Your task to perform on an android device: toggle priority inbox in the gmail app Image 0: 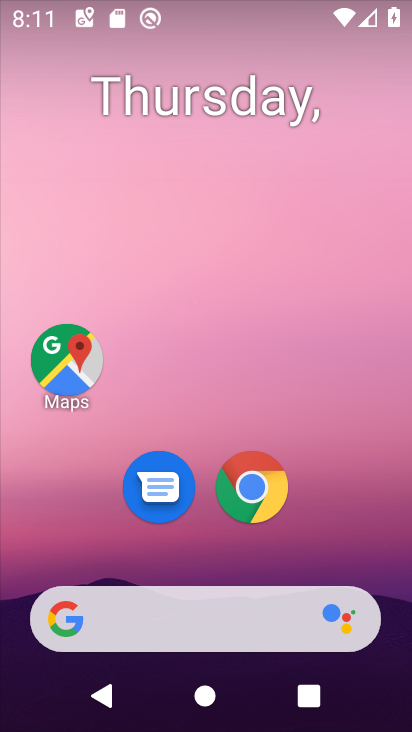
Step 0: drag from (218, 517) to (208, 56)
Your task to perform on an android device: toggle priority inbox in the gmail app Image 1: 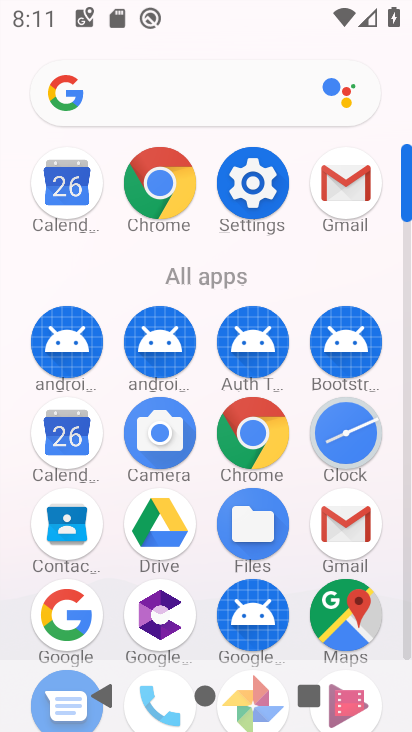
Step 1: click (354, 175)
Your task to perform on an android device: toggle priority inbox in the gmail app Image 2: 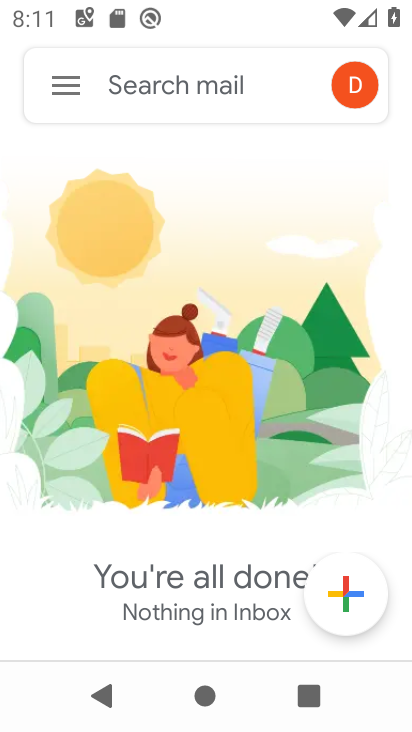
Step 2: click (62, 73)
Your task to perform on an android device: toggle priority inbox in the gmail app Image 3: 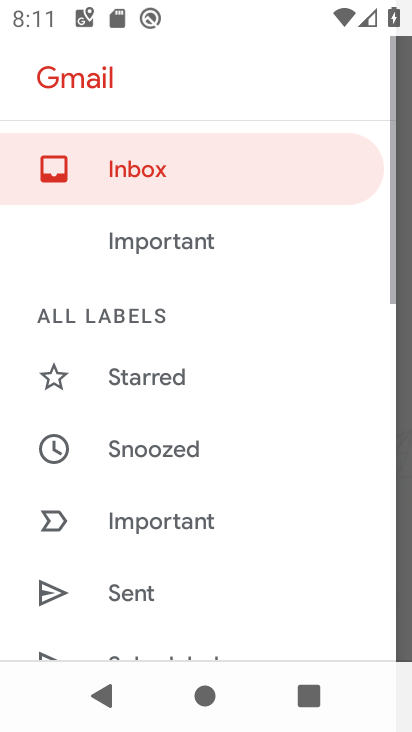
Step 3: drag from (137, 578) to (258, 2)
Your task to perform on an android device: toggle priority inbox in the gmail app Image 4: 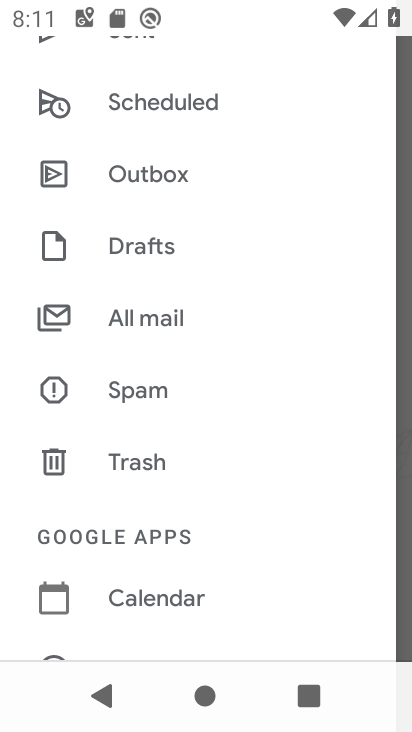
Step 4: drag from (157, 573) to (261, 23)
Your task to perform on an android device: toggle priority inbox in the gmail app Image 5: 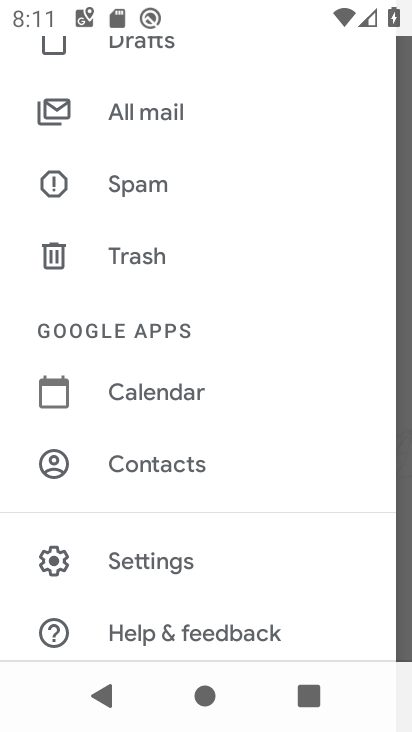
Step 5: click (171, 555)
Your task to perform on an android device: toggle priority inbox in the gmail app Image 6: 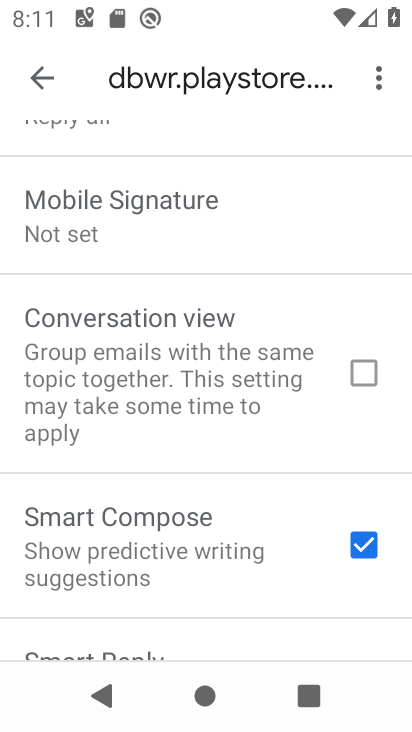
Step 6: drag from (212, 163) to (179, 722)
Your task to perform on an android device: toggle priority inbox in the gmail app Image 7: 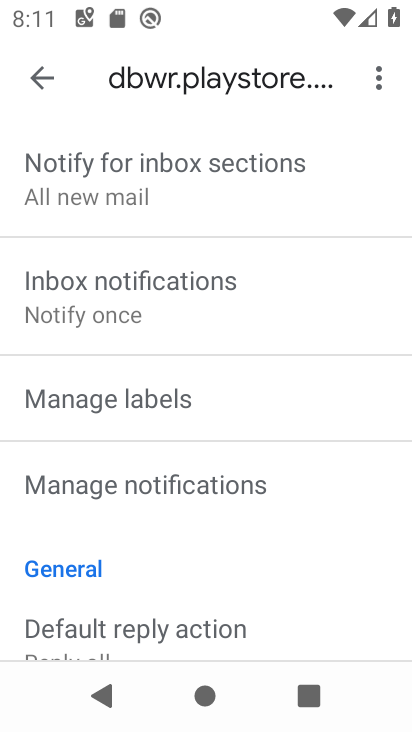
Step 7: drag from (215, 193) to (169, 731)
Your task to perform on an android device: toggle priority inbox in the gmail app Image 8: 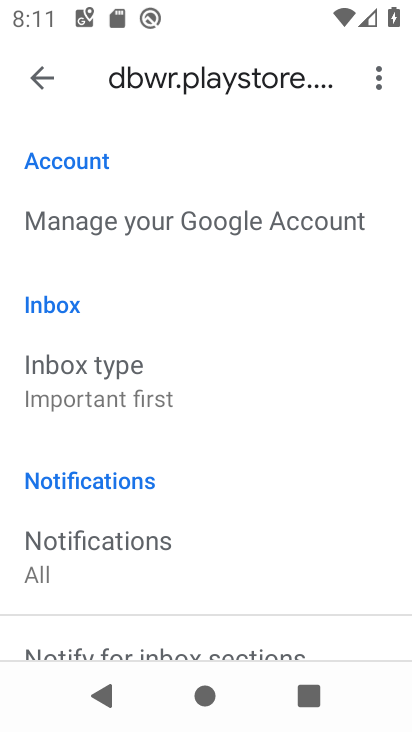
Step 8: click (94, 374)
Your task to perform on an android device: toggle priority inbox in the gmail app Image 9: 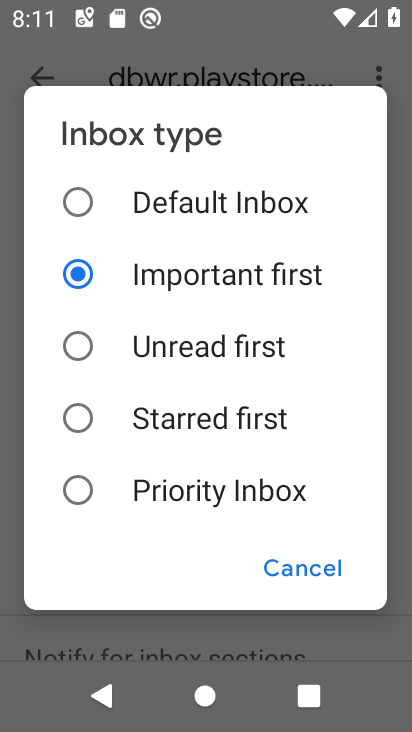
Step 9: click (72, 483)
Your task to perform on an android device: toggle priority inbox in the gmail app Image 10: 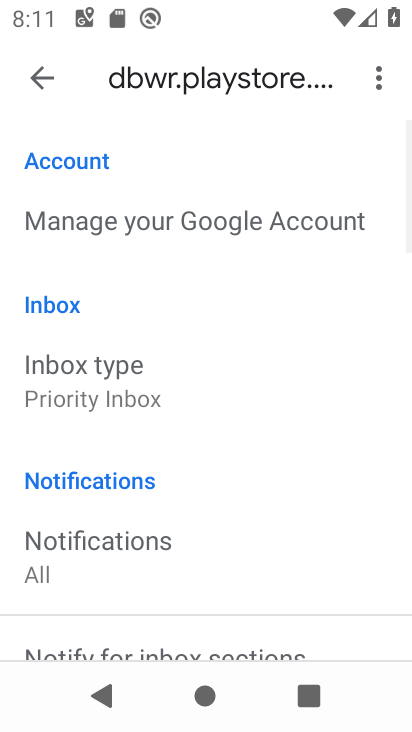
Step 10: task complete